Your task to perform on an android device: open app "WhatsApp Messenger" (install if not already installed) and go to login screen Image 0: 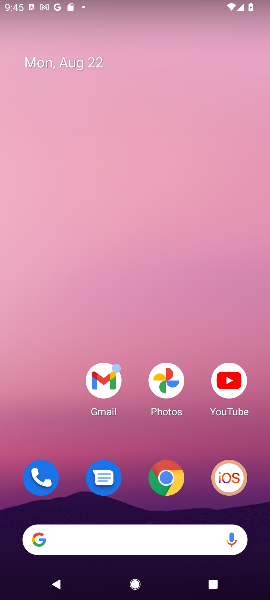
Step 0: drag from (137, 510) to (113, 65)
Your task to perform on an android device: open app "WhatsApp Messenger" (install if not already installed) and go to login screen Image 1: 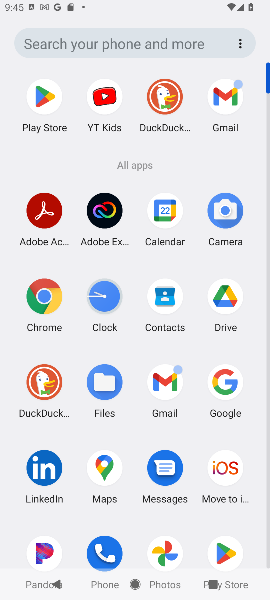
Step 1: drag from (137, 561) to (141, 150)
Your task to perform on an android device: open app "WhatsApp Messenger" (install if not already installed) and go to login screen Image 2: 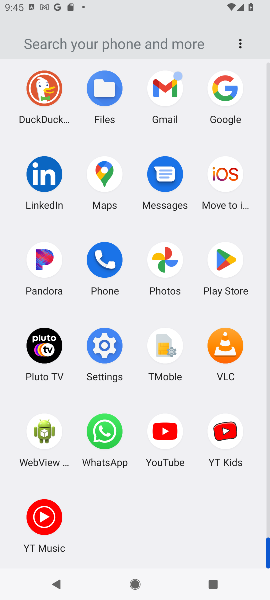
Step 2: click (103, 414)
Your task to perform on an android device: open app "WhatsApp Messenger" (install if not already installed) and go to login screen Image 3: 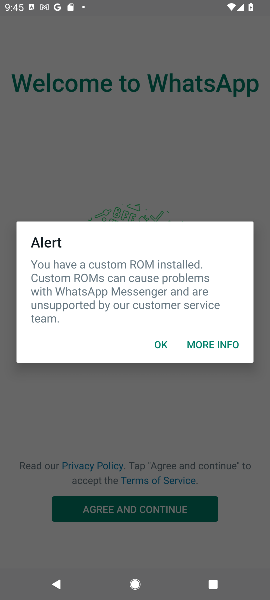
Step 3: task complete